Your task to perform on an android device: set default search engine in the chrome app Image 0: 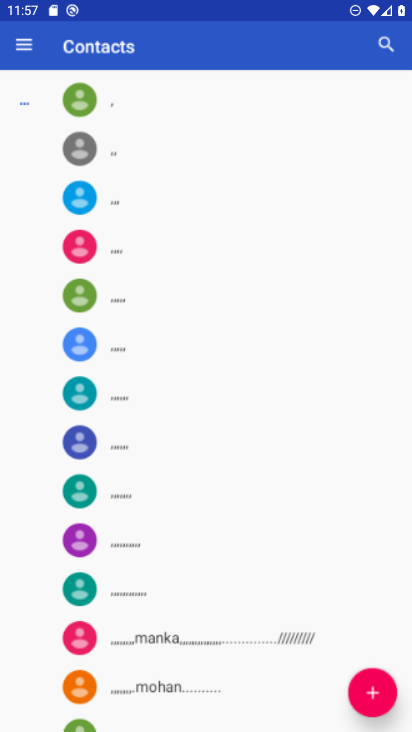
Step 0: press home button
Your task to perform on an android device: set default search engine in the chrome app Image 1: 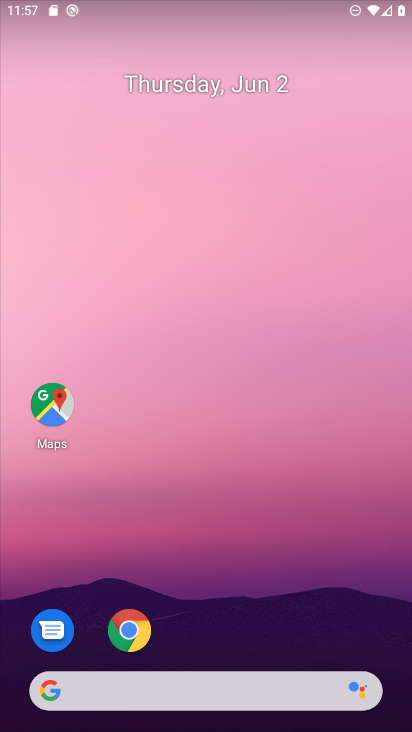
Step 1: click (141, 634)
Your task to perform on an android device: set default search engine in the chrome app Image 2: 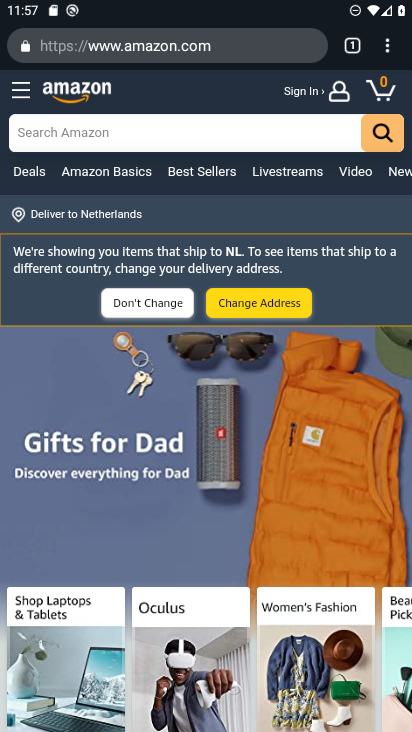
Step 2: click (395, 54)
Your task to perform on an android device: set default search engine in the chrome app Image 3: 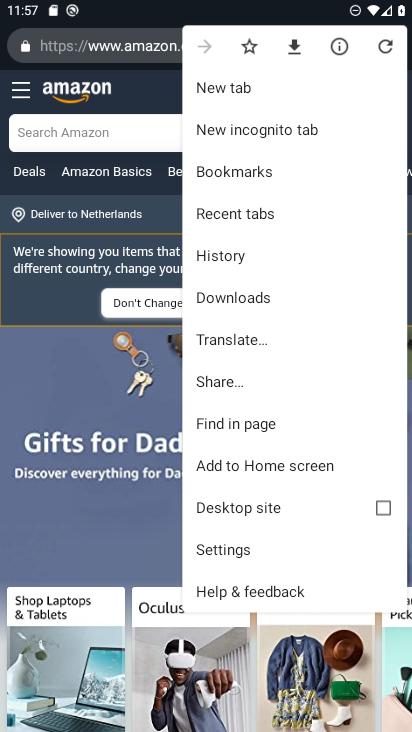
Step 3: click (276, 552)
Your task to perform on an android device: set default search engine in the chrome app Image 4: 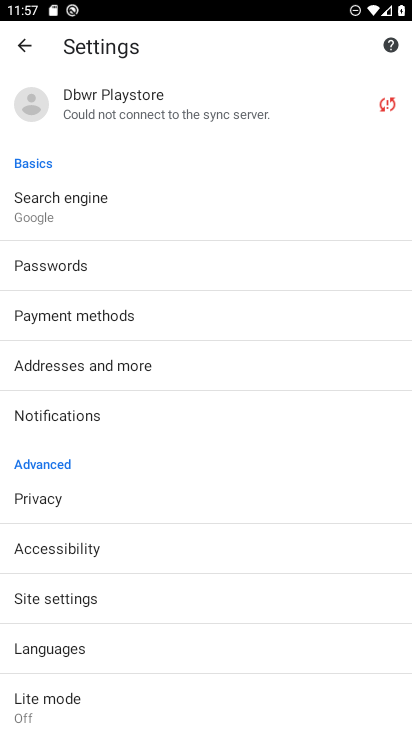
Step 4: click (95, 208)
Your task to perform on an android device: set default search engine in the chrome app Image 5: 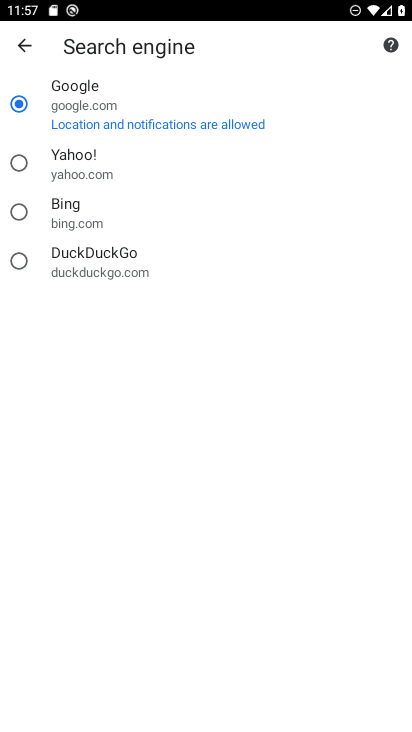
Step 5: click (92, 160)
Your task to perform on an android device: set default search engine in the chrome app Image 6: 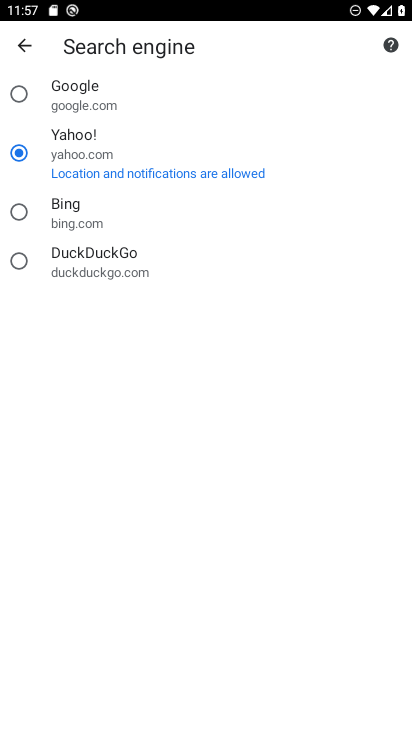
Step 6: task complete